Your task to perform on an android device: turn off data saver in the chrome app Image 0: 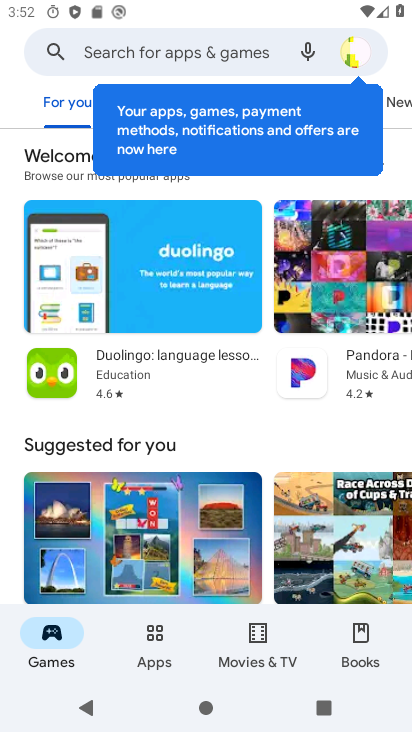
Step 0: press home button
Your task to perform on an android device: turn off data saver in the chrome app Image 1: 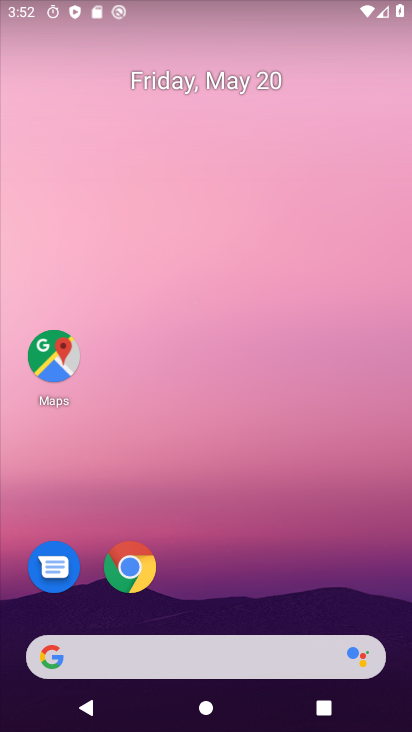
Step 1: click (132, 569)
Your task to perform on an android device: turn off data saver in the chrome app Image 2: 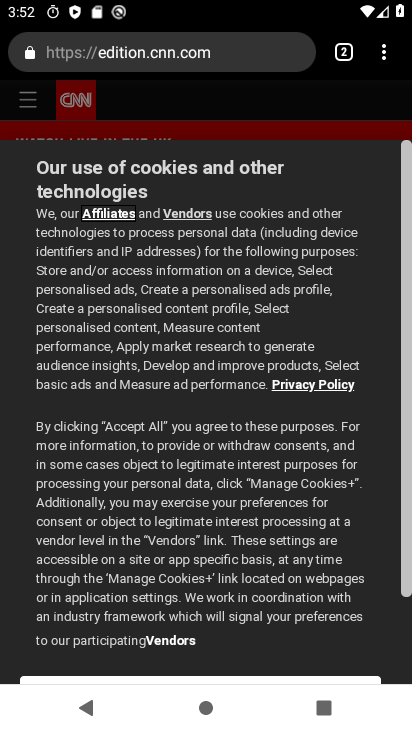
Step 2: click (395, 59)
Your task to perform on an android device: turn off data saver in the chrome app Image 3: 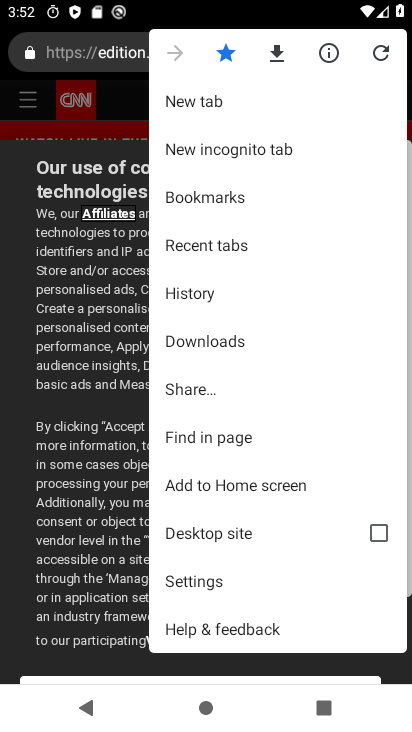
Step 3: click (178, 588)
Your task to perform on an android device: turn off data saver in the chrome app Image 4: 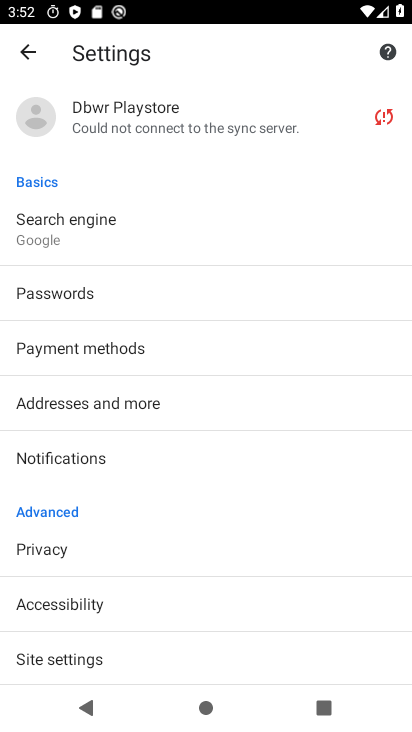
Step 4: drag from (178, 588) to (216, 335)
Your task to perform on an android device: turn off data saver in the chrome app Image 5: 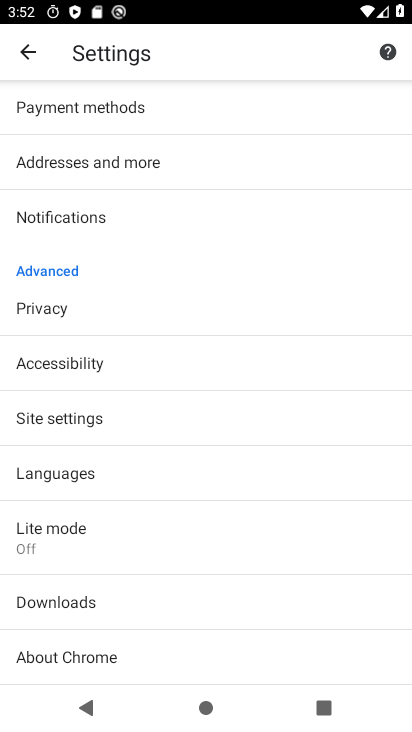
Step 5: drag from (128, 667) to (251, 281)
Your task to perform on an android device: turn off data saver in the chrome app Image 6: 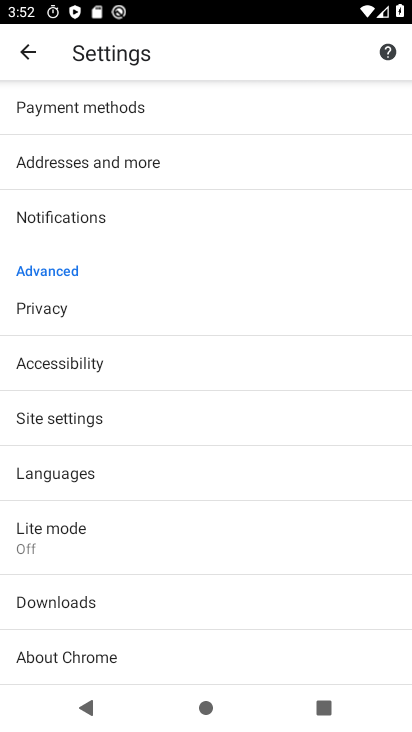
Step 6: click (78, 532)
Your task to perform on an android device: turn off data saver in the chrome app Image 7: 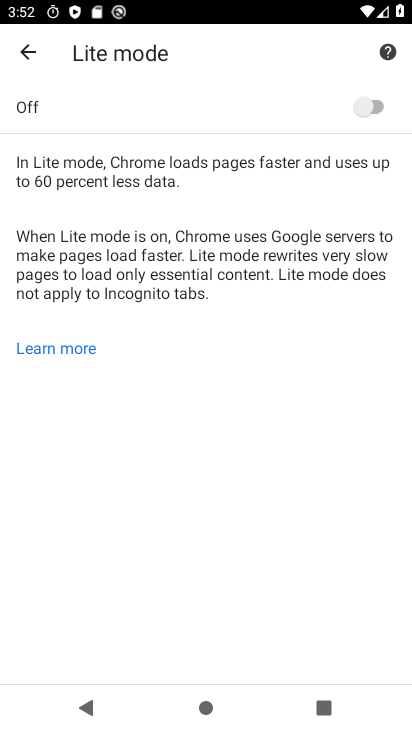
Step 7: task complete